Your task to perform on an android device: Go to accessibility settings Image 0: 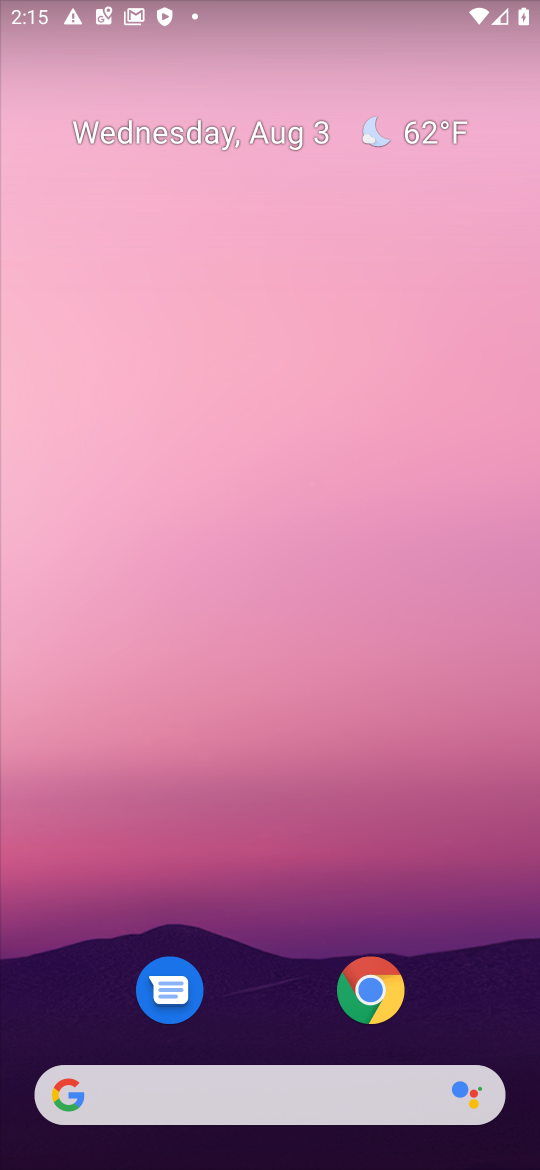
Step 0: drag from (260, 993) to (260, 343)
Your task to perform on an android device: Go to accessibility settings Image 1: 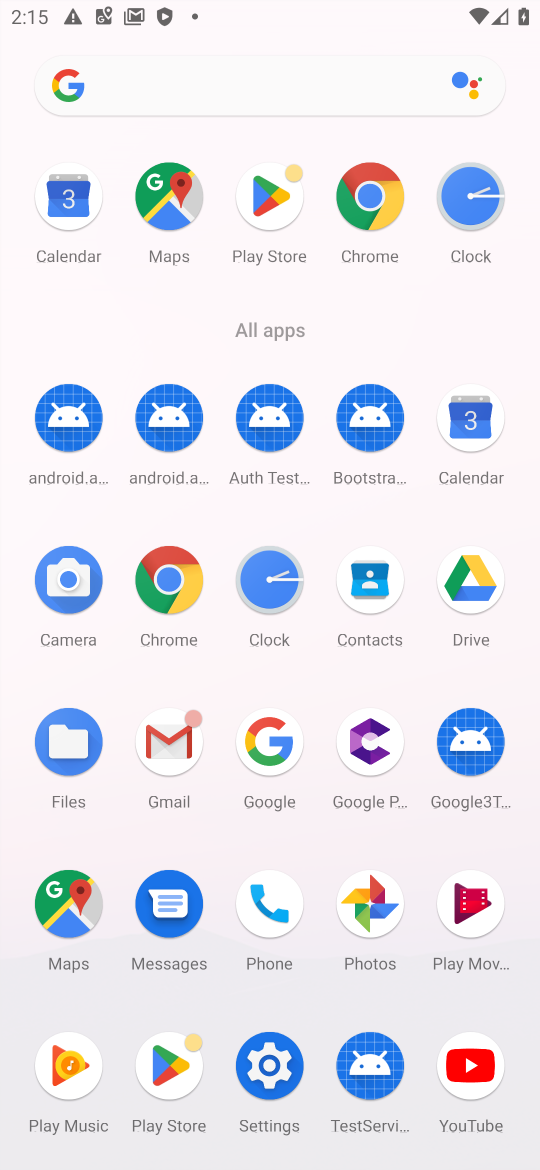
Step 1: click (269, 1059)
Your task to perform on an android device: Go to accessibility settings Image 2: 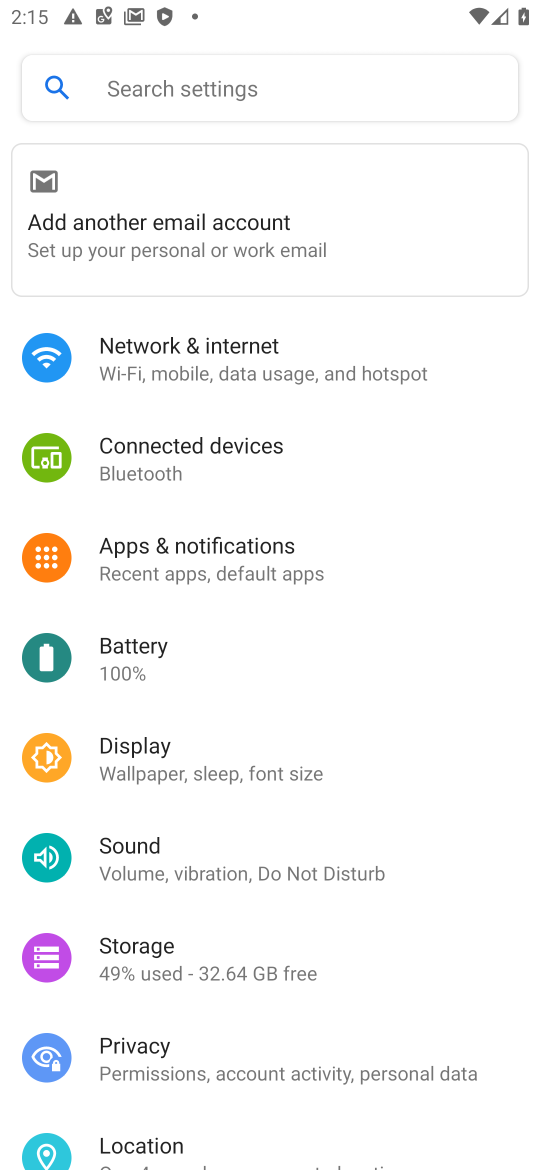
Step 2: drag from (152, 1056) to (175, 449)
Your task to perform on an android device: Go to accessibility settings Image 3: 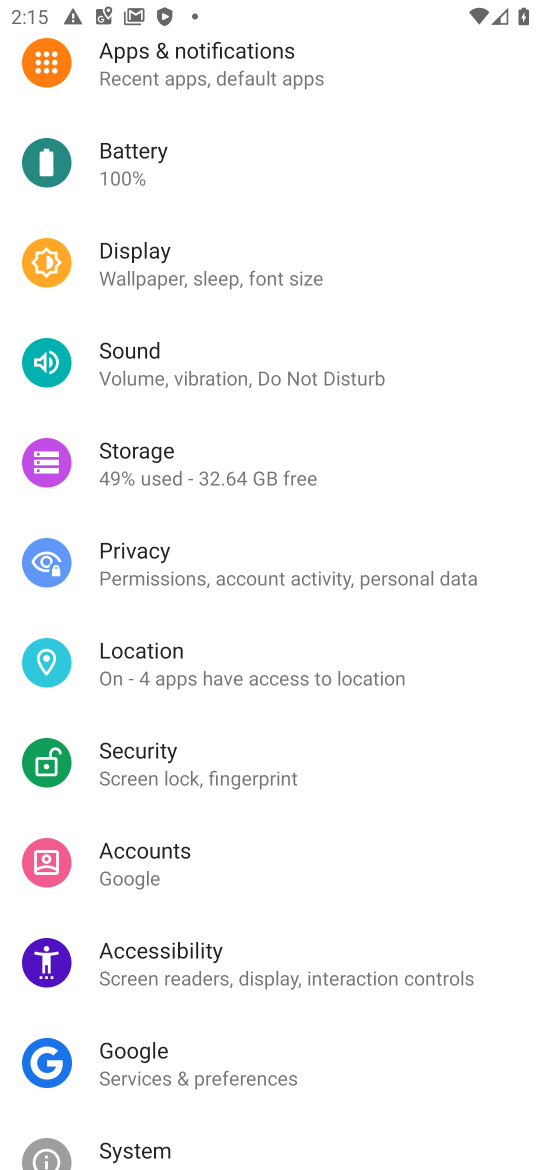
Step 3: click (187, 947)
Your task to perform on an android device: Go to accessibility settings Image 4: 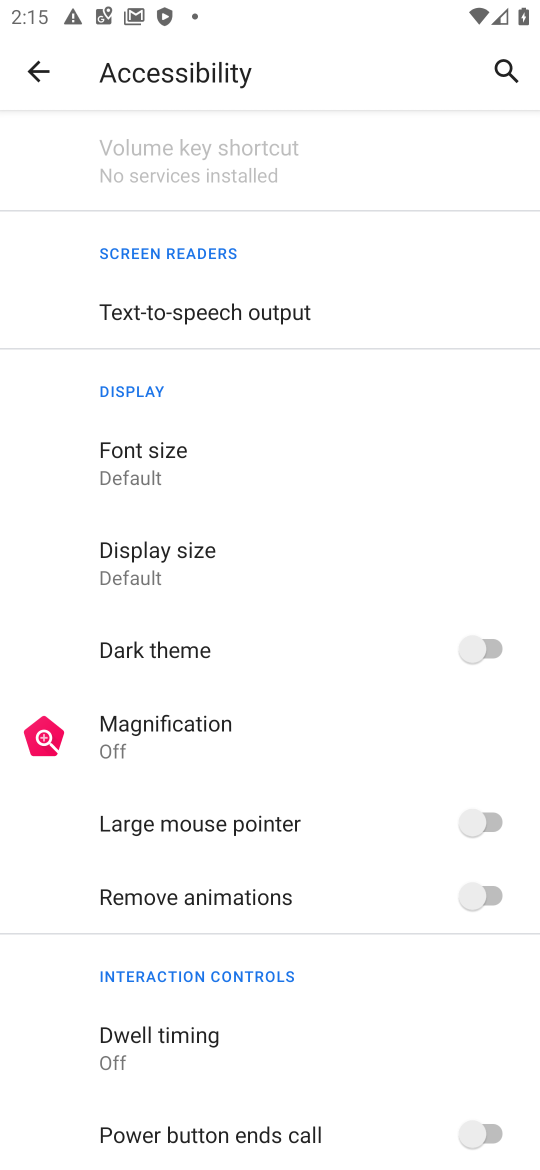
Step 4: task complete